Your task to perform on an android device: Open Google Chrome and open the bookmarks view Image 0: 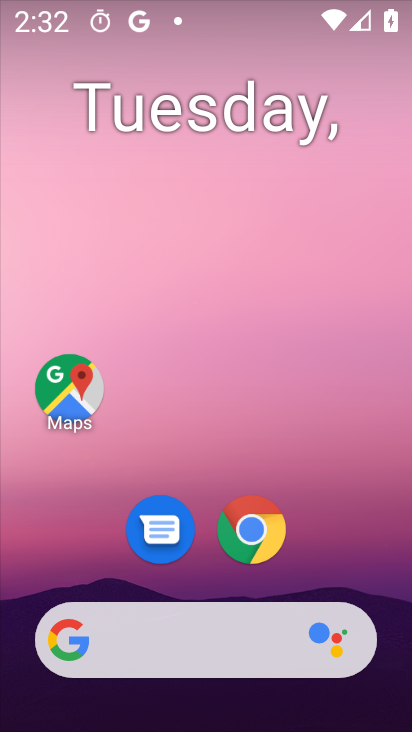
Step 0: click (235, 527)
Your task to perform on an android device: Open Google Chrome and open the bookmarks view Image 1: 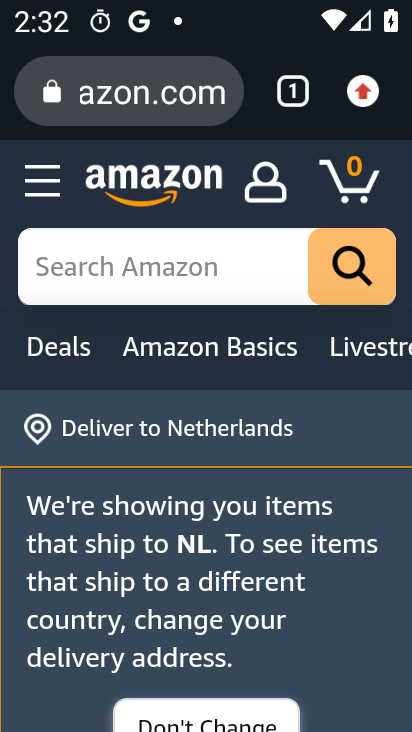
Step 1: click (363, 90)
Your task to perform on an android device: Open Google Chrome and open the bookmarks view Image 2: 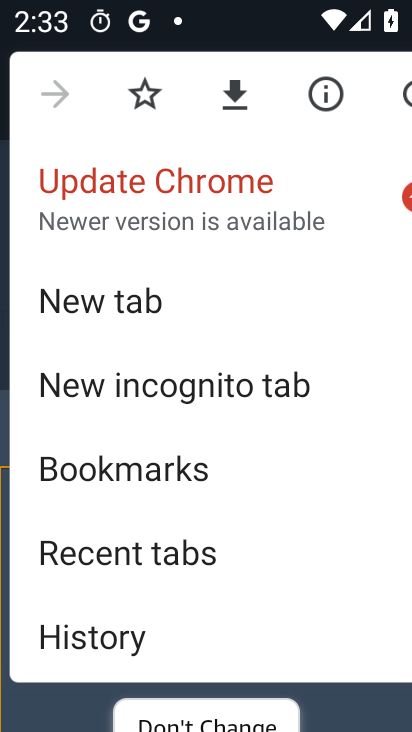
Step 2: click (131, 307)
Your task to perform on an android device: Open Google Chrome and open the bookmarks view Image 3: 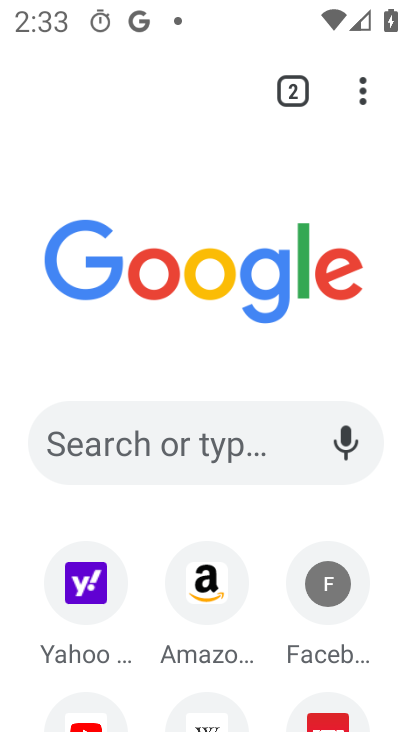
Step 3: click (359, 84)
Your task to perform on an android device: Open Google Chrome and open the bookmarks view Image 4: 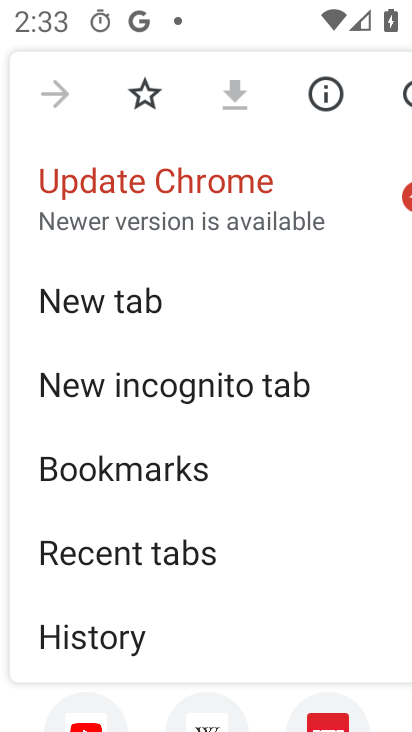
Step 4: click (123, 472)
Your task to perform on an android device: Open Google Chrome and open the bookmarks view Image 5: 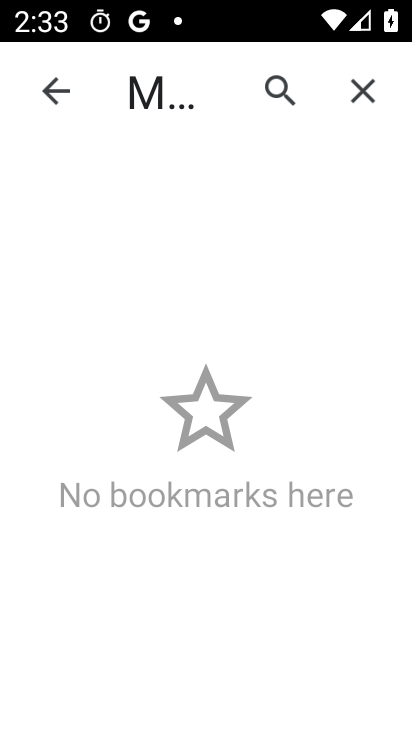
Step 5: task complete